Your task to perform on an android device: turn off notifications settings in the gmail app Image 0: 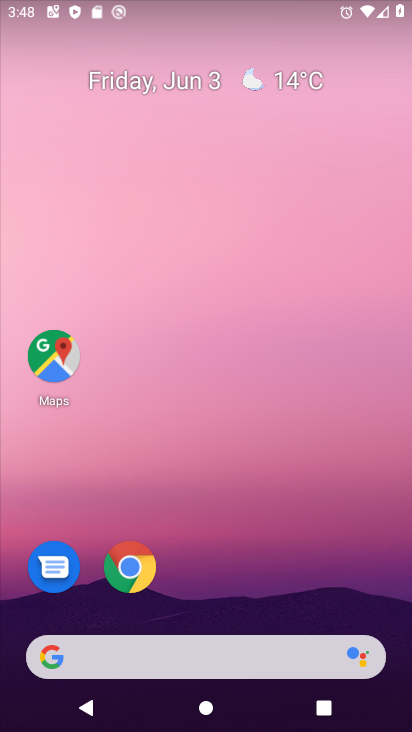
Step 0: drag from (276, 687) to (218, 103)
Your task to perform on an android device: turn off notifications settings in the gmail app Image 1: 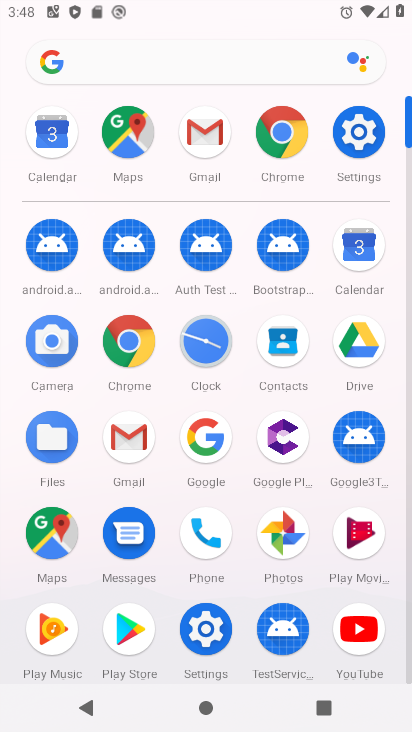
Step 1: click (201, 124)
Your task to perform on an android device: turn off notifications settings in the gmail app Image 2: 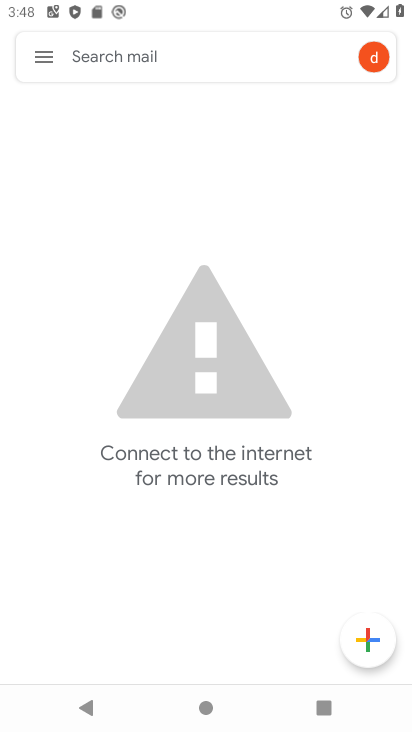
Step 2: click (45, 62)
Your task to perform on an android device: turn off notifications settings in the gmail app Image 3: 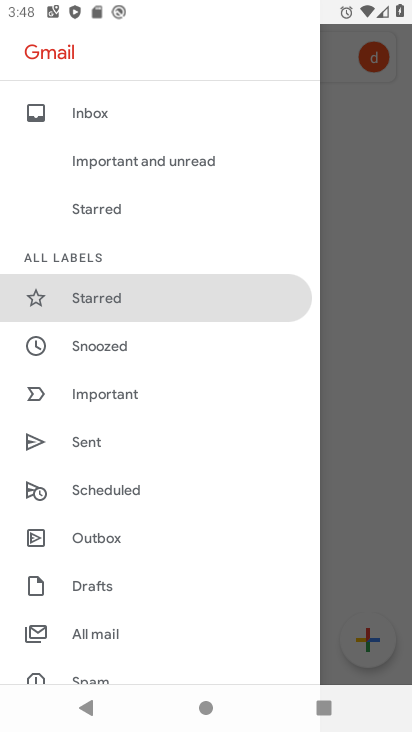
Step 3: drag from (112, 607) to (166, 329)
Your task to perform on an android device: turn off notifications settings in the gmail app Image 4: 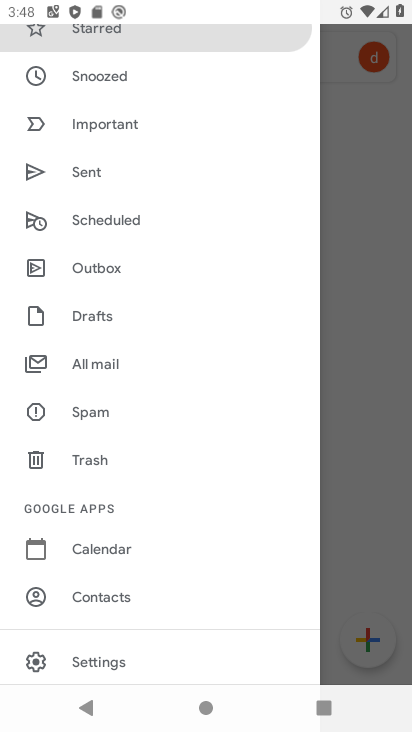
Step 4: click (120, 664)
Your task to perform on an android device: turn off notifications settings in the gmail app Image 5: 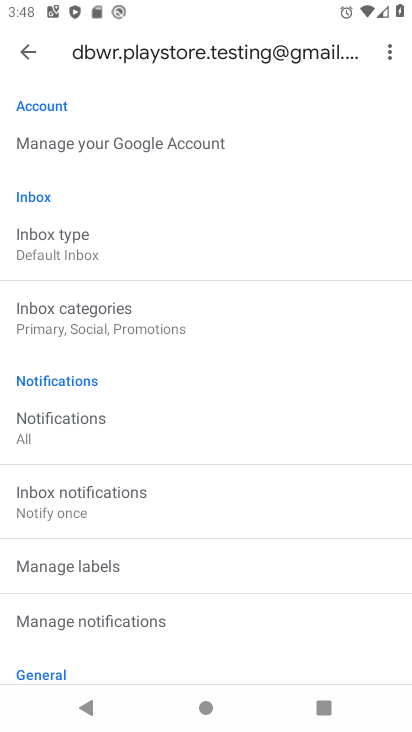
Step 5: click (97, 423)
Your task to perform on an android device: turn off notifications settings in the gmail app Image 6: 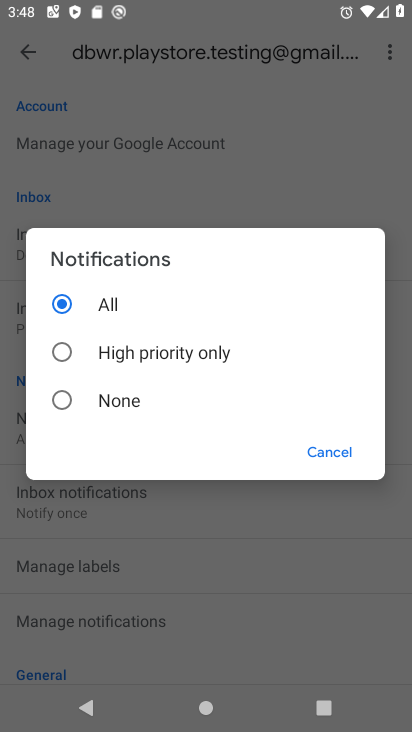
Step 6: click (154, 410)
Your task to perform on an android device: turn off notifications settings in the gmail app Image 7: 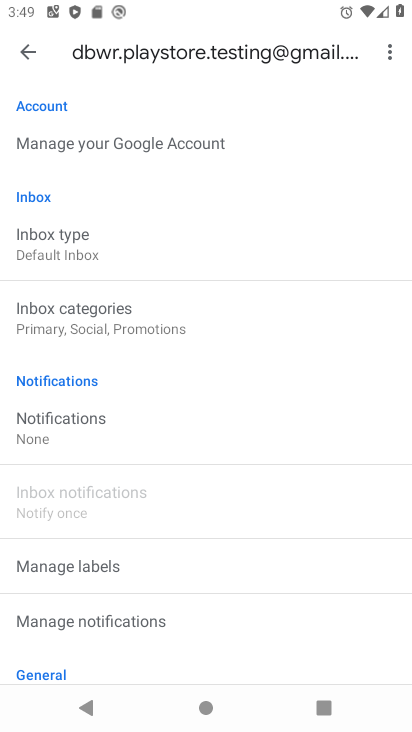
Step 7: task complete